Your task to perform on an android device: open a new tab in the chrome app Image 0: 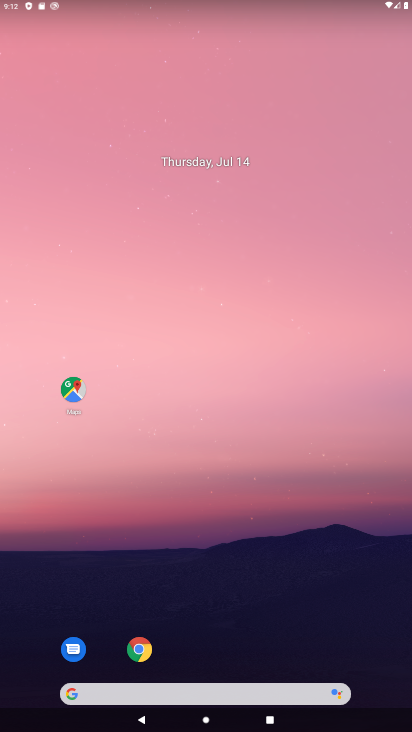
Step 0: click (138, 641)
Your task to perform on an android device: open a new tab in the chrome app Image 1: 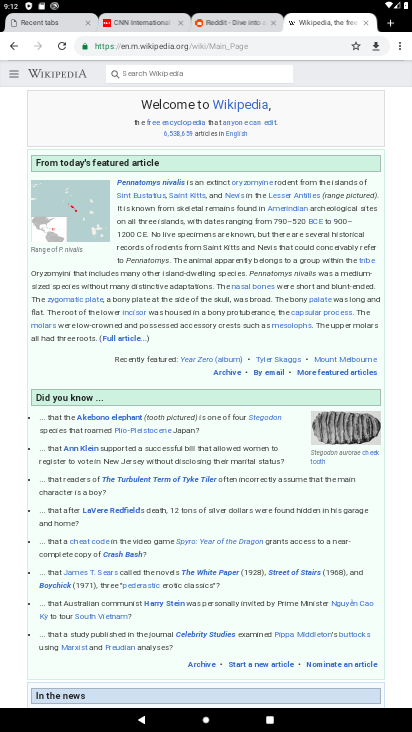
Step 1: click (391, 27)
Your task to perform on an android device: open a new tab in the chrome app Image 2: 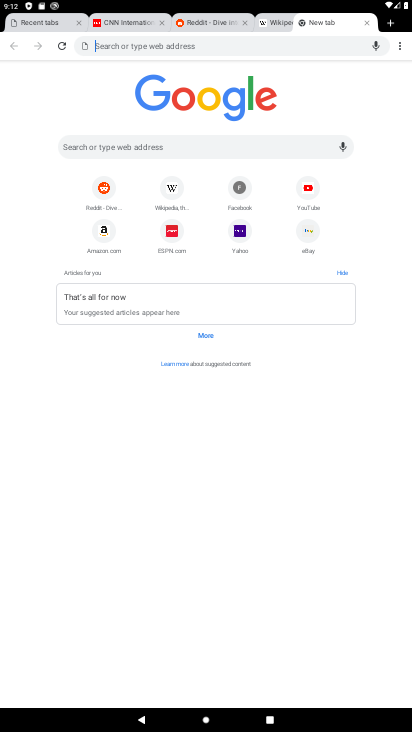
Step 2: task complete